Your task to perform on an android device: turn off wifi Image 0: 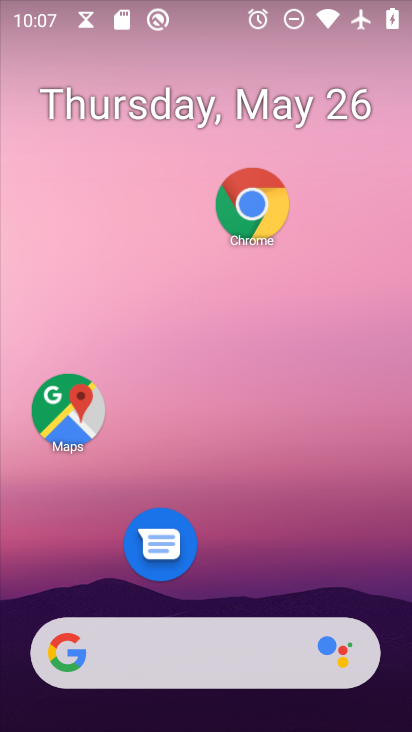
Step 0: drag from (194, 16) to (190, 571)
Your task to perform on an android device: turn off wifi Image 1: 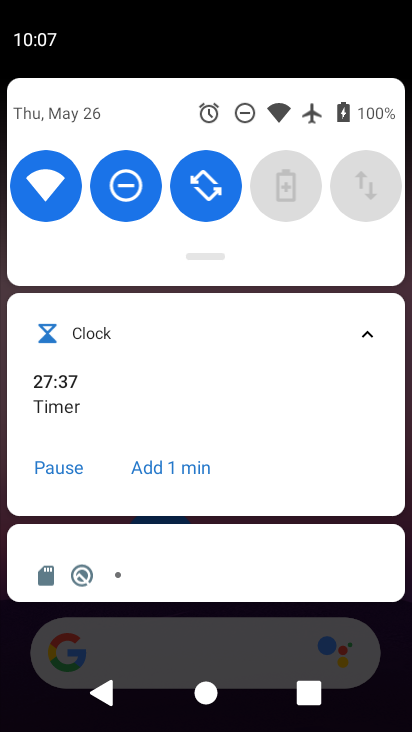
Step 1: click (52, 193)
Your task to perform on an android device: turn off wifi Image 2: 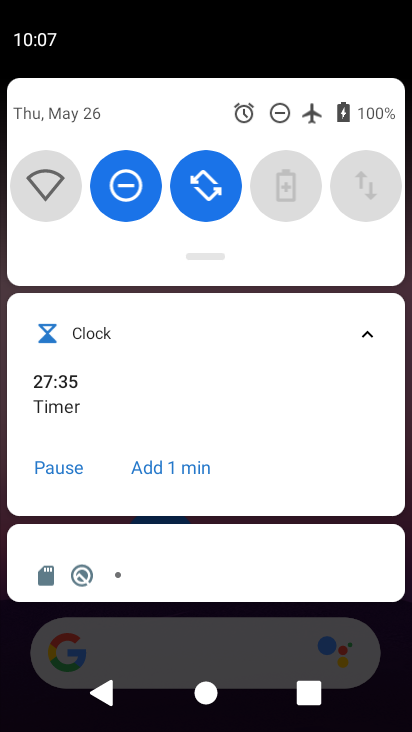
Step 2: task complete